Your task to perform on an android device: Go to calendar. Show me events next week Image 0: 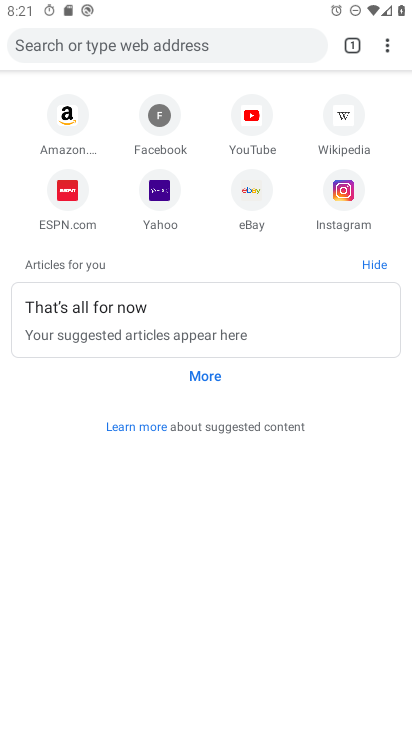
Step 0: press home button
Your task to perform on an android device: Go to calendar. Show me events next week Image 1: 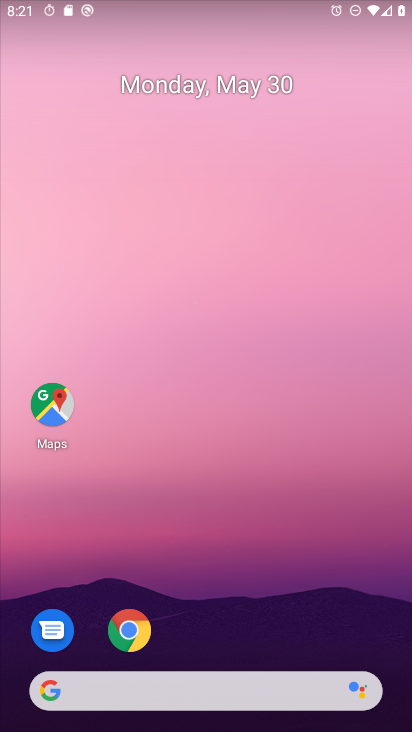
Step 1: drag from (345, 616) to (266, 108)
Your task to perform on an android device: Go to calendar. Show me events next week Image 2: 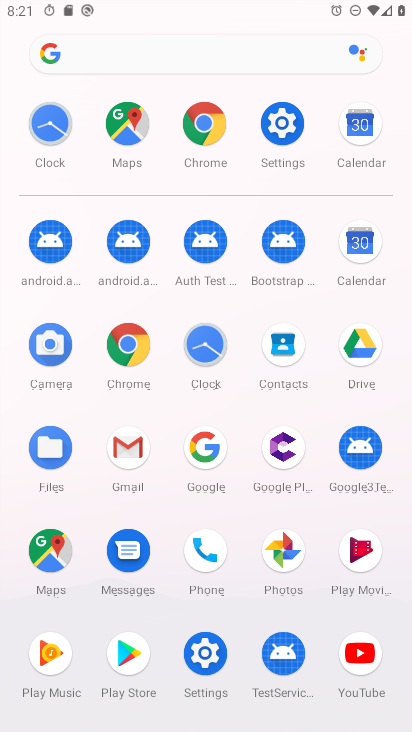
Step 2: click (359, 254)
Your task to perform on an android device: Go to calendar. Show me events next week Image 3: 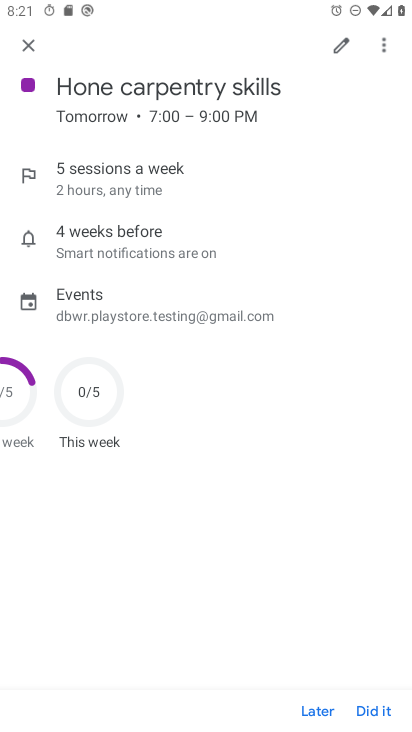
Step 3: task complete